Your task to perform on an android device: Go to Wikipedia Image 0: 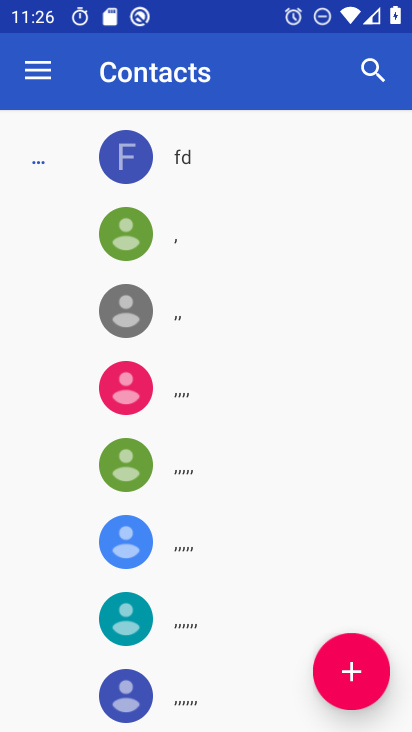
Step 0: press home button
Your task to perform on an android device: Go to Wikipedia Image 1: 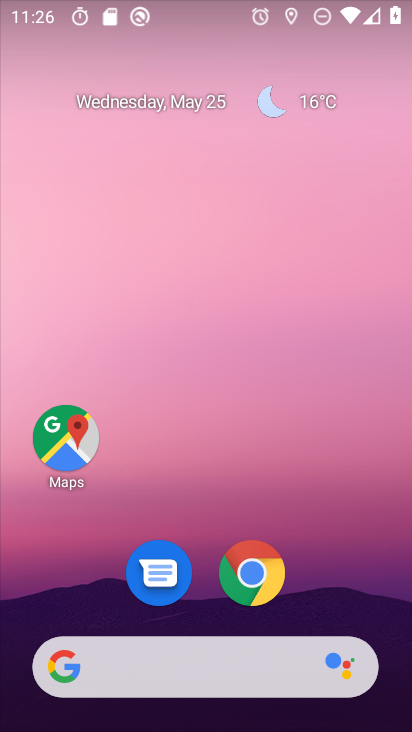
Step 1: click (252, 576)
Your task to perform on an android device: Go to Wikipedia Image 2: 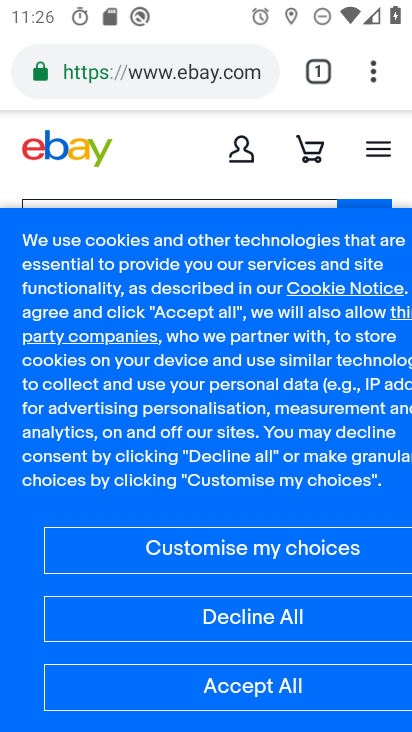
Step 2: click (132, 79)
Your task to perform on an android device: Go to Wikipedia Image 3: 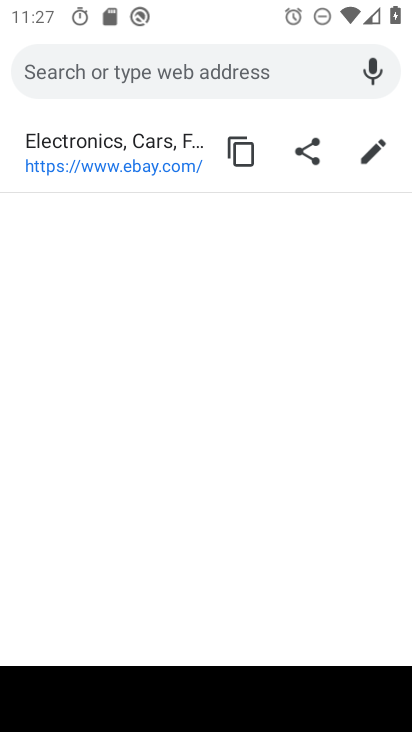
Step 3: type "wikipedia"
Your task to perform on an android device: Go to Wikipedia Image 4: 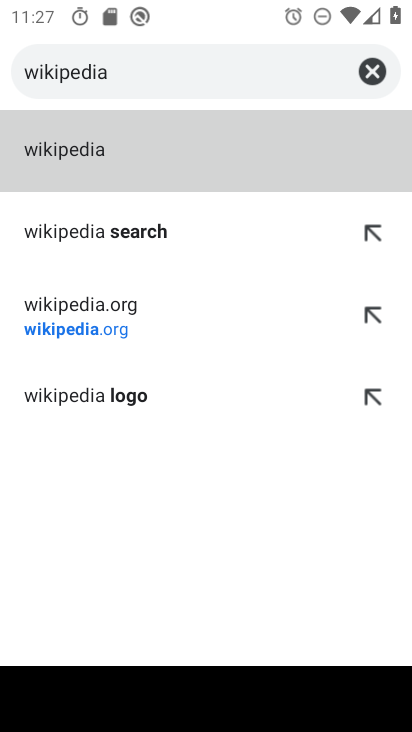
Step 4: click (58, 150)
Your task to perform on an android device: Go to Wikipedia Image 5: 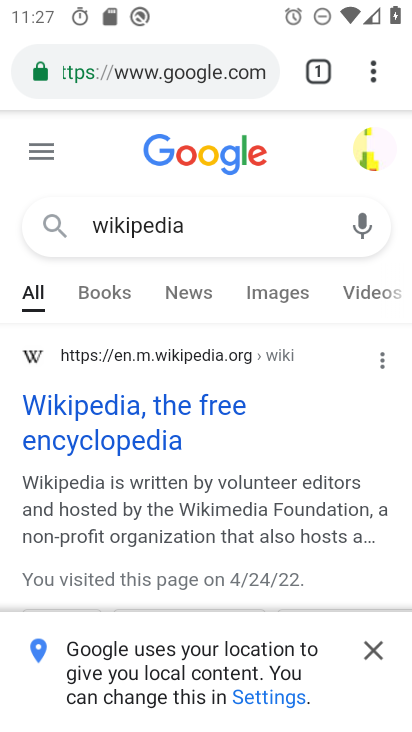
Step 5: click (116, 362)
Your task to perform on an android device: Go to Wikipedia Image 6: 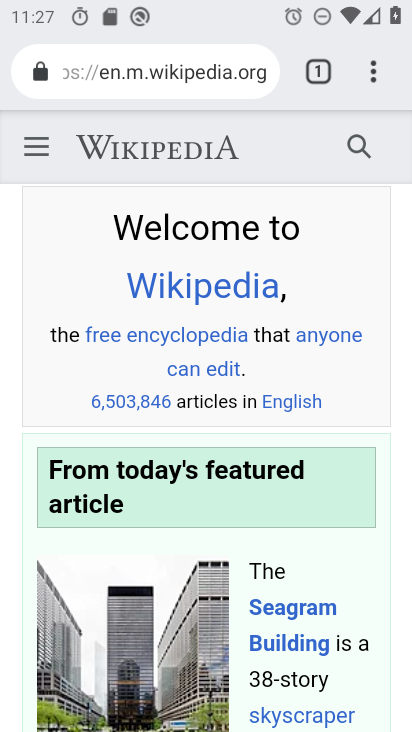
Step 6: task complete